Your task to perform on an android device: see tabs open on other devices in the chrome app Image 0: 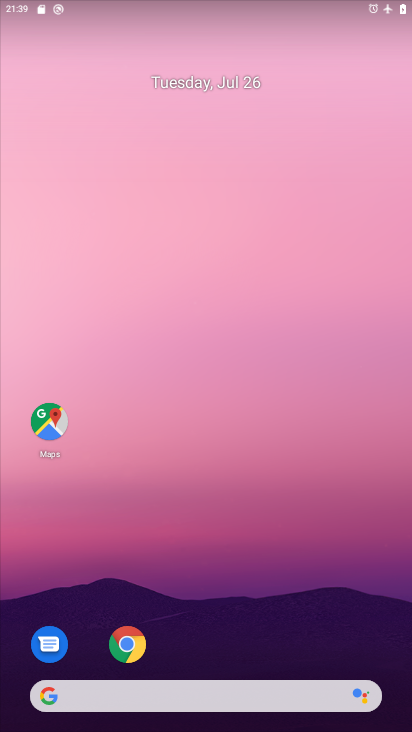
Step 0: drag from (236, 662) to (244, 178)
Your task to perform on an android device: see tabs open on other devices in the chrome app Image 1: 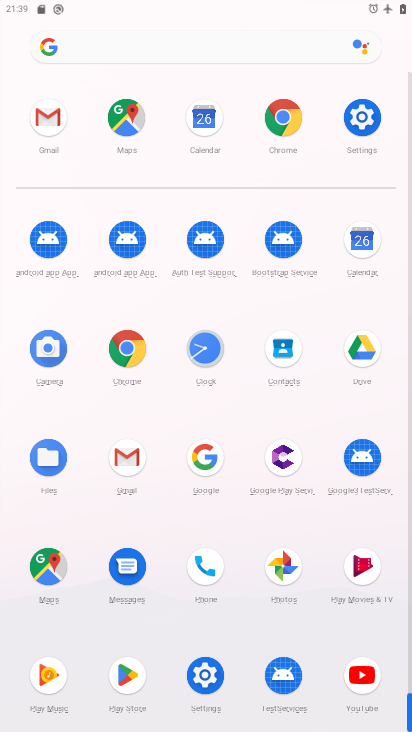
Step 1: click (299, 121)
Your task to perform on an android device: see tabs open on other devices in the chrome app Image 2: 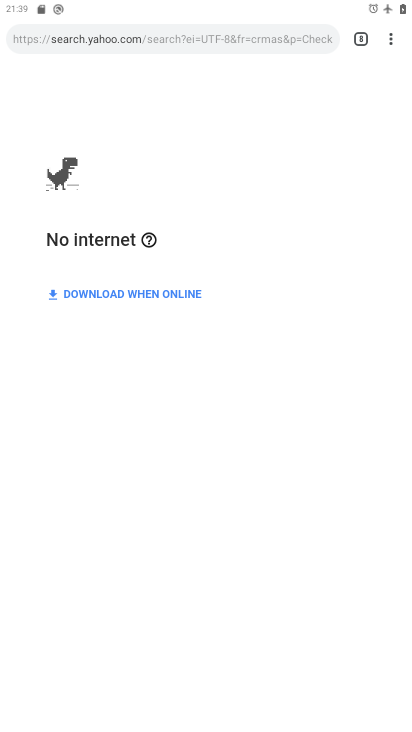
Step 2: click (399, 29)
Your task to perform on an android device: see tabs open on other devices in the chrome app Image 3: 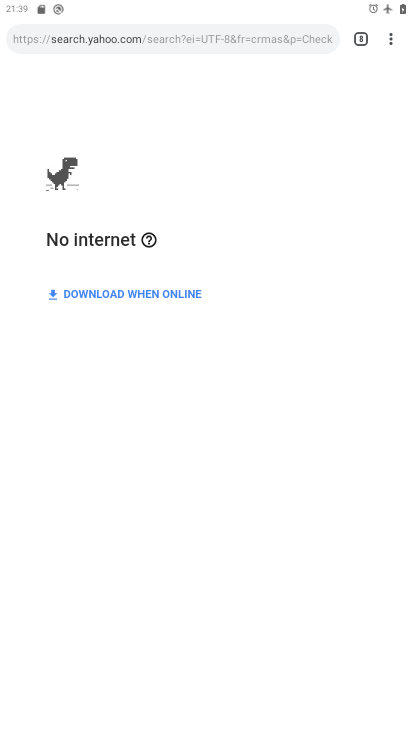
Step 3: click (397, 40)
Your task to perform on an android device: see tabs open on other devices in the chrome app Image 4: 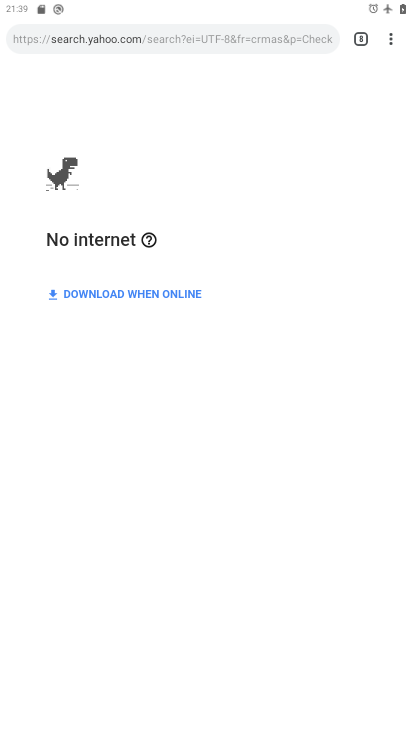
Step 4: click (397, 40)
Your task to perform on an android device: see tabs open on other devices in the chrome app Image 5: 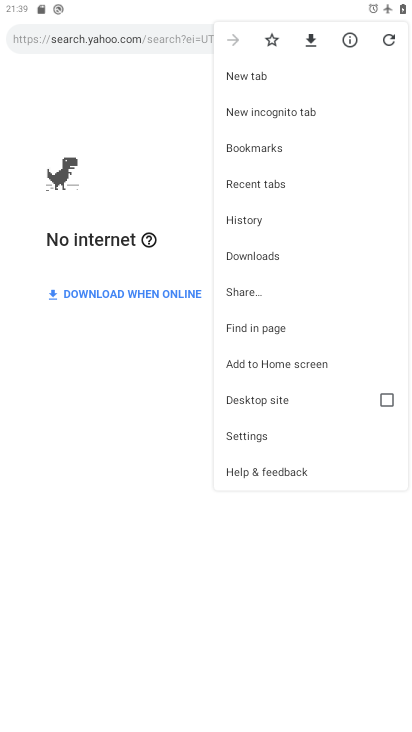
Step 5: click (265, 218)
Your task to perform on an android device: see tabs open on other devices in the chrome app Image 6: 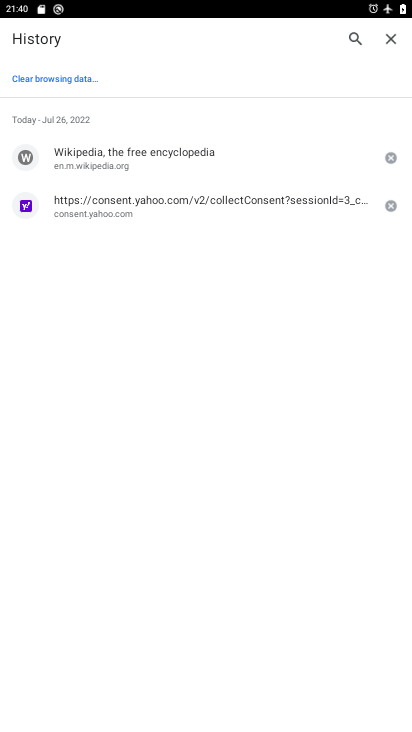
Step 6: task complete